Your task to perform on an android device: check android version Image 0: 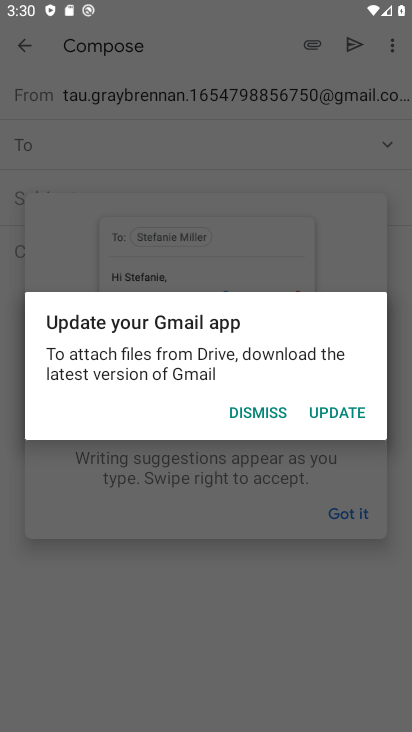
Step 0: press home button
Your task to perform on an android device: check android version Image 1: 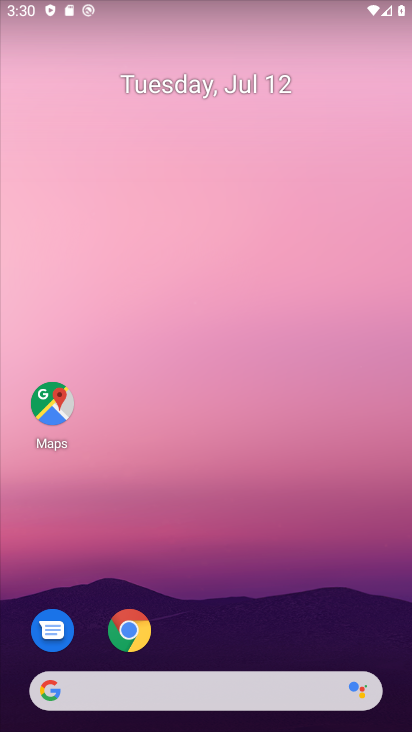
Step 1: drag from (252, 554) to (124, 10)
Your task to perform on an android device: check android version Image 2: 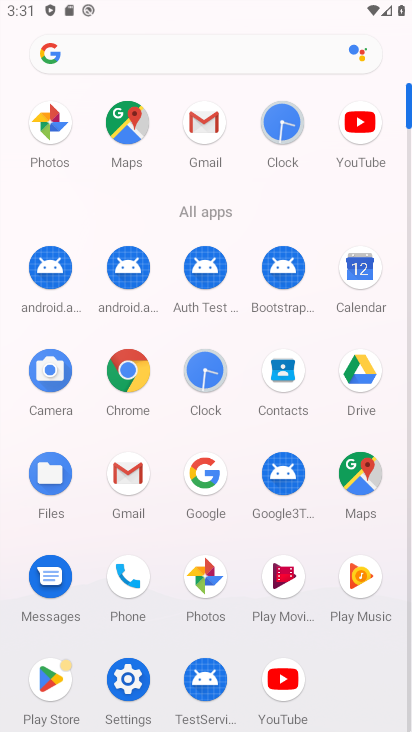
Step 2: click (113, 689)
Your task to perform on an android device: check android version Image 3: 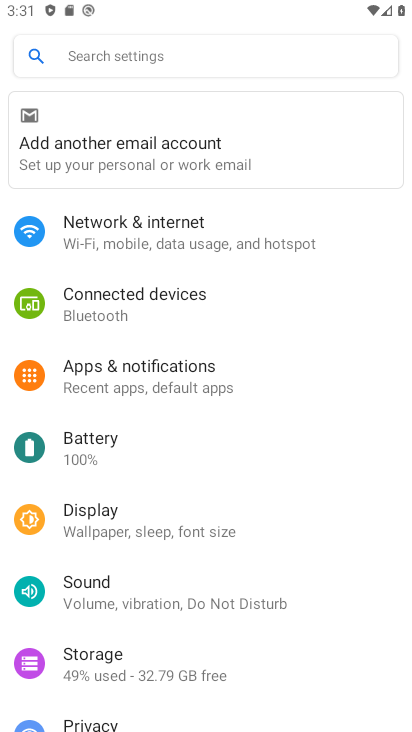
Step 3: drag from (176, 685) to (186, 292)
Your task to perform on an android device: check android version Image 4: 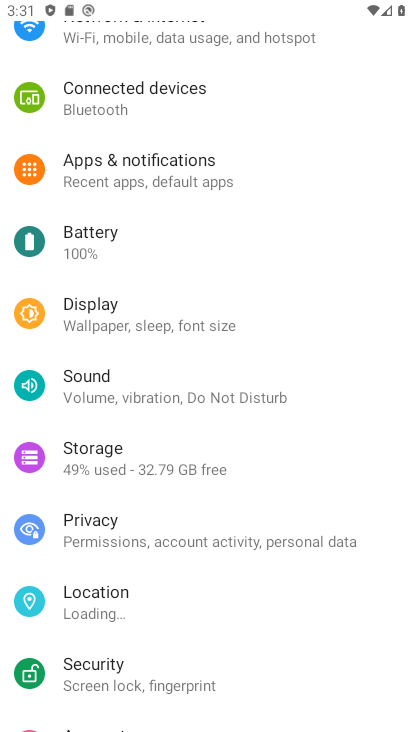
Step 4: drag from (170, 589) to (171, 140)
Your task to perform on an android device: check android version Image 5: 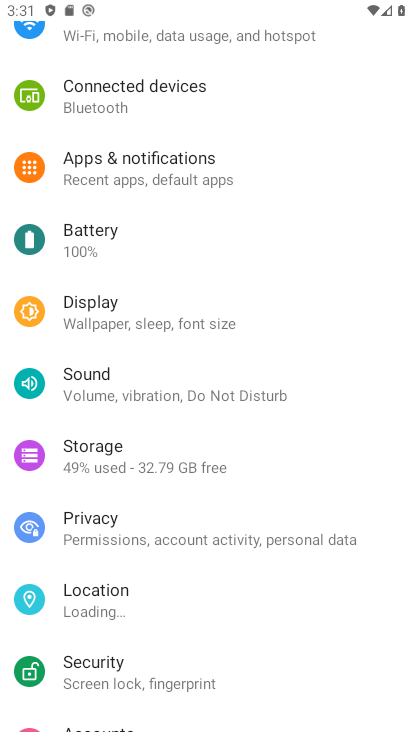
Step 5: drag from (106, 588) to (189, 149)
Your task to perform on an android device: check android version Image 6: 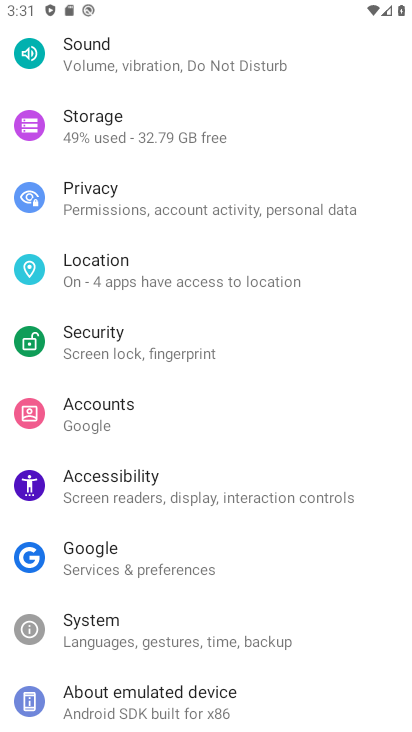
Step 6: click (176, 689)
Your task to perform on an android device: check android version Image 7: 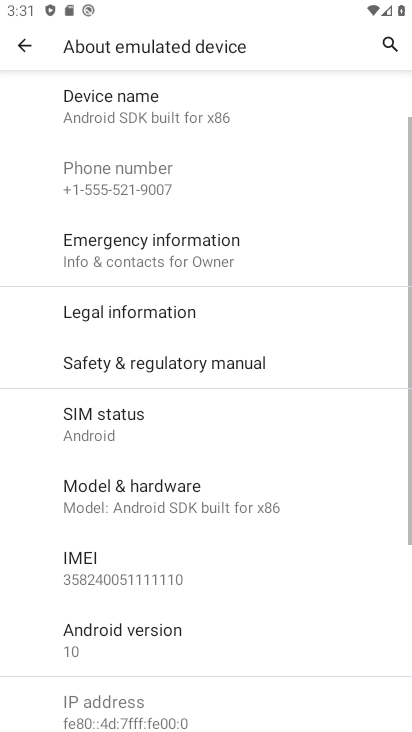
Step 7: click (212, 643)
Your task to perform on an android device: check android version Image 8: 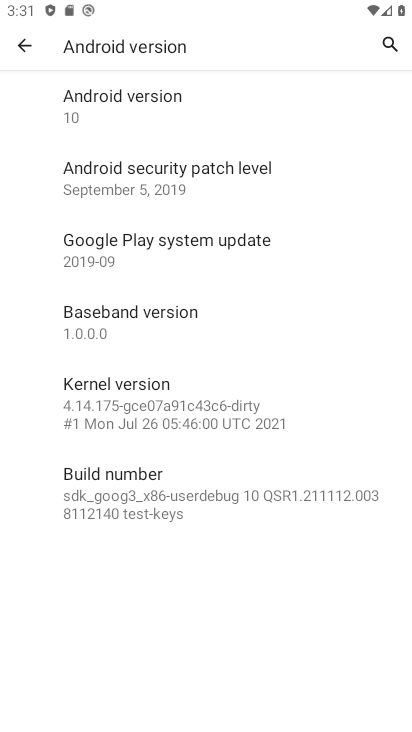
Step 8: click (118, 82)
Your task to perform on an android device: check android version Image 9: 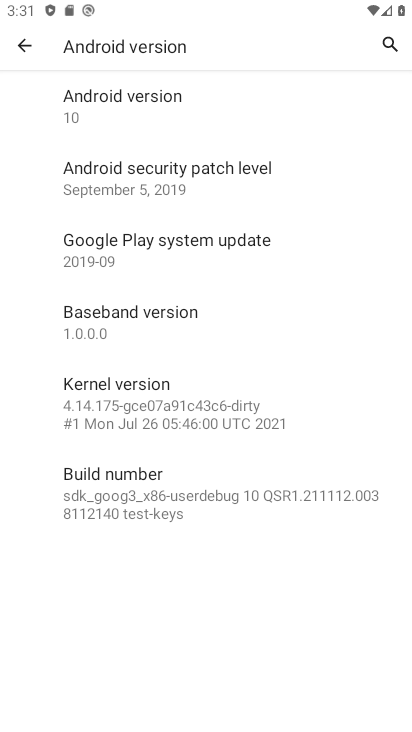
Step 9: task complete